Your task to perform on an android device: set default search engine in the chrome app Image 0: 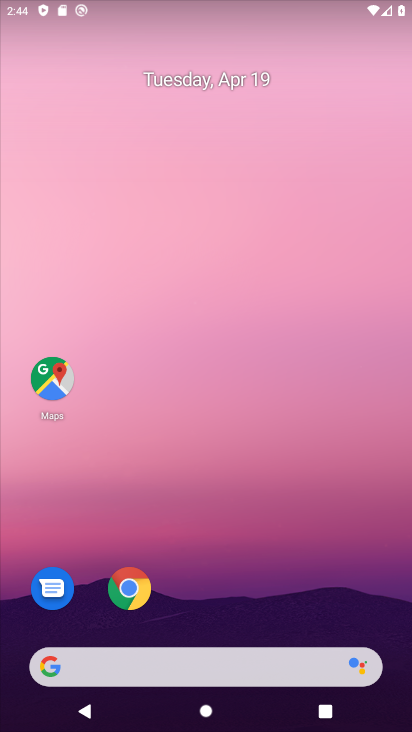
Step 0: drag from (235, 615) to (320, 284)
Your task to perform on an android device: set default search engine in the chrome app Image 1: 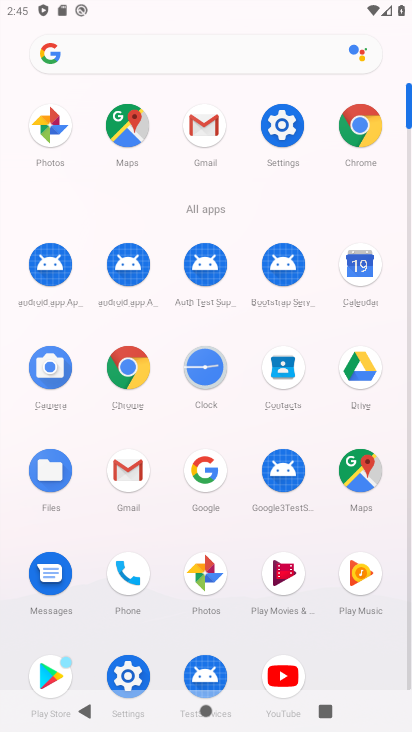
Step 1: click (124, 362)
Your task to perform on an android device: set default search engine in the chrome app Image 2: 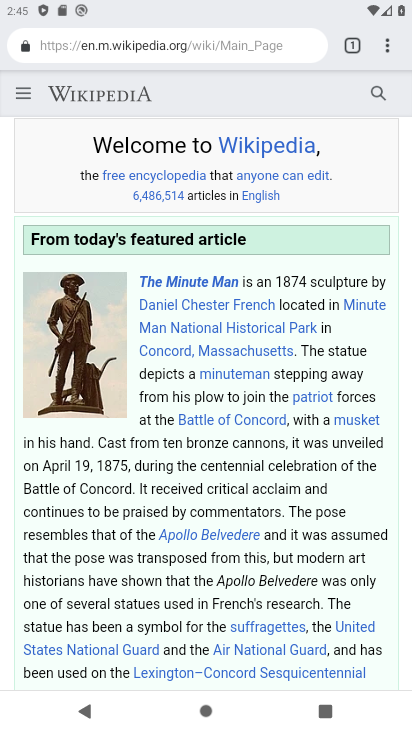
Step 2: drag from (177, 576) to (239, 699)
Your task to perform on an android device: set default search engine in the chrome app Image 3: 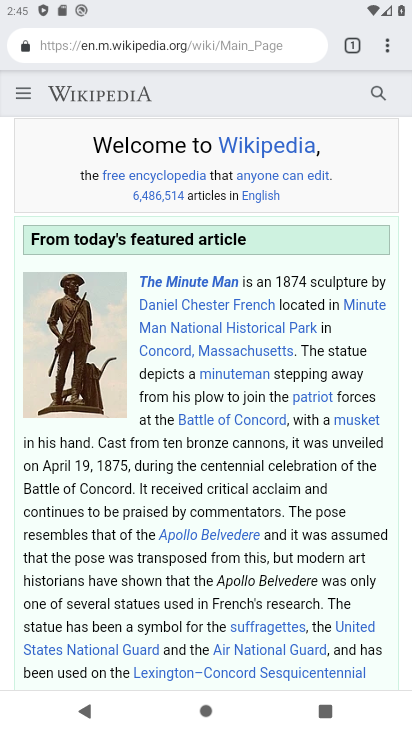
Step 3: drag from (388, 48) to (243, 550)
Your task to perform on an android device: set default search engine in the chrome app Image 4: 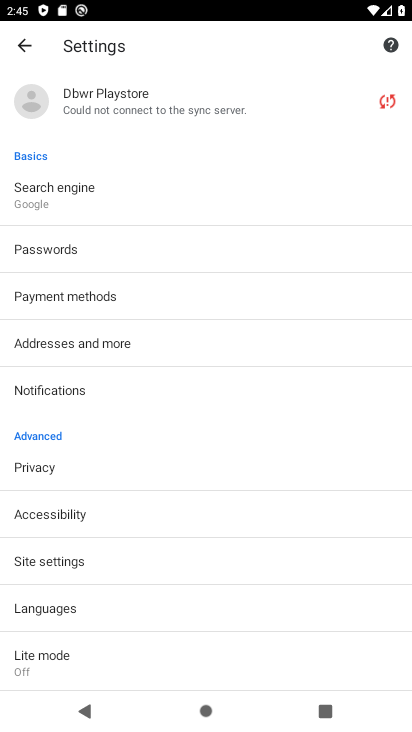
Step 4: drag from (132, 607) to (223, 367)
Your task to perform on an android device: set default search engine in the chrome app Image 5: 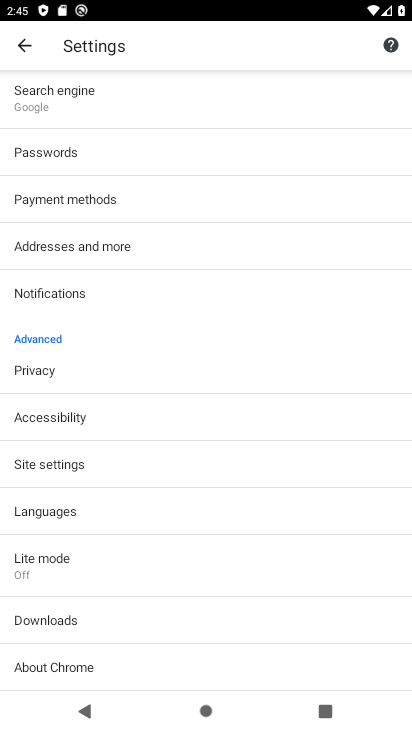
Step 5: click (165, 92)
Your task to perform on an android device: set default search engine in the chrome app Image 6: 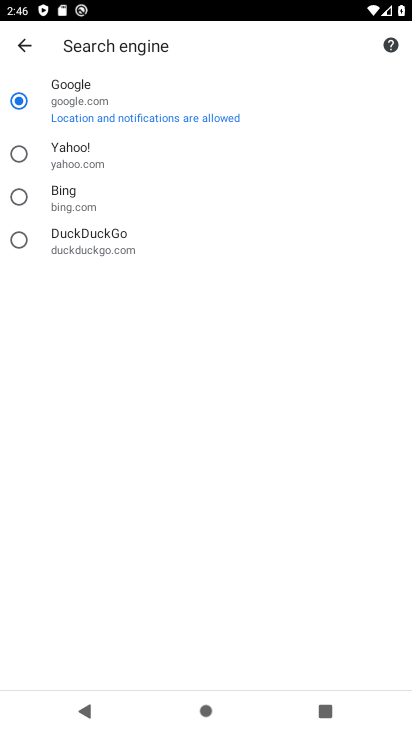
Step 6: task complete